Your task to perform on an android device: show emergency info Image 0: 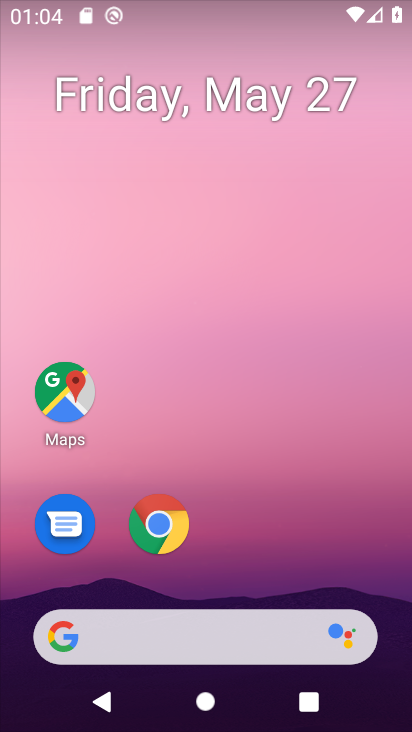
Step 0: drag from (276, 538) to (252, 46)
Your task to perform on an android device: show emergency info Image 1: 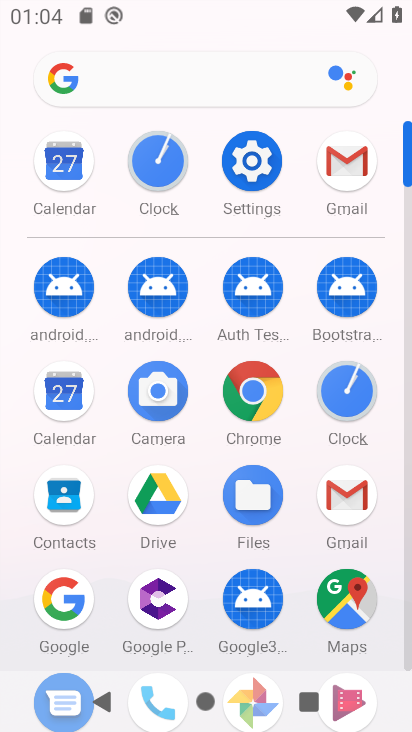
Step 1: click (250, 164)
Your task to perform on an android device: show emergency info Image 2: 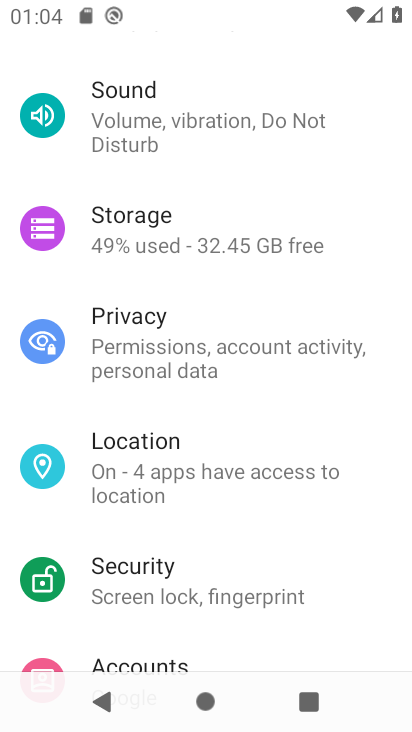
Step 2: drag from (243, 563) to (265, 21)
Your task to perform on an android device: show emergency info Image 3: 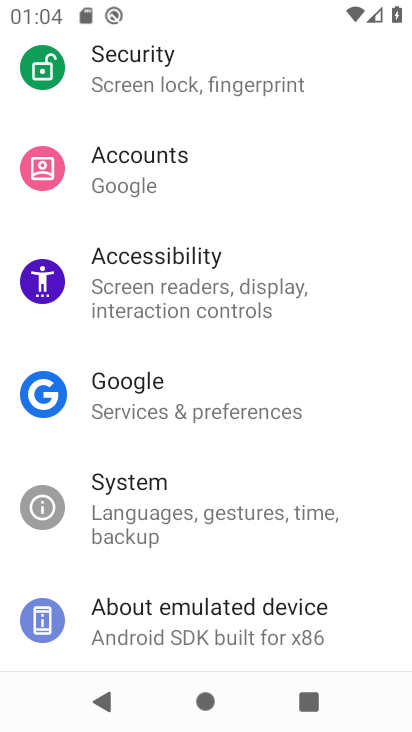
Step 3: click (237, 616)
Your task to perform on an android device: show emergency info Image 4: 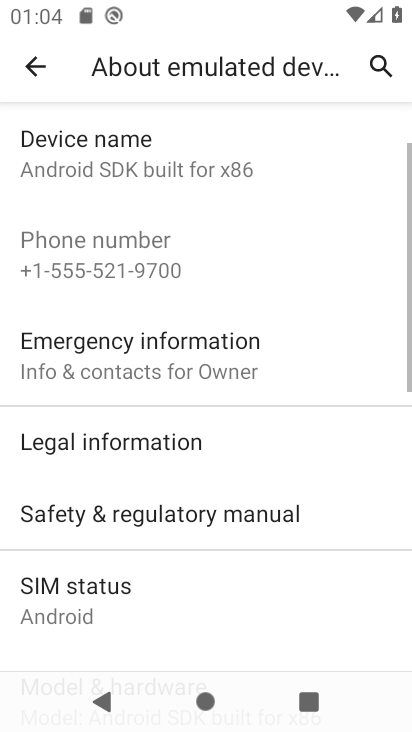
Step 4: click (180, 365)
Your task to perform on an android device: show emergency info Image 5: 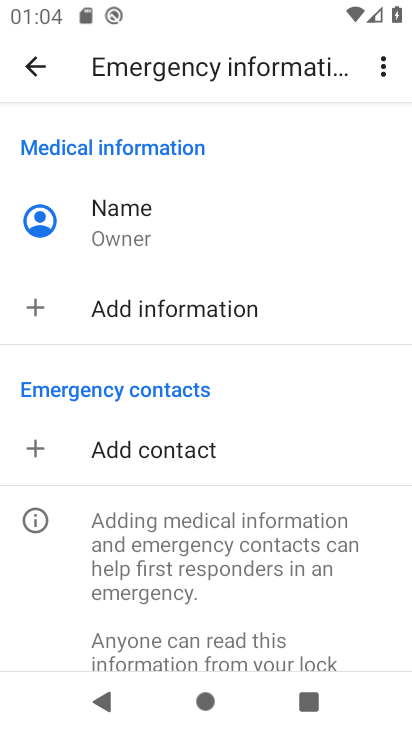
Step 5: task complete